Your task to perform on an android device: Search for Mexican restaurants on Maps Image 0: 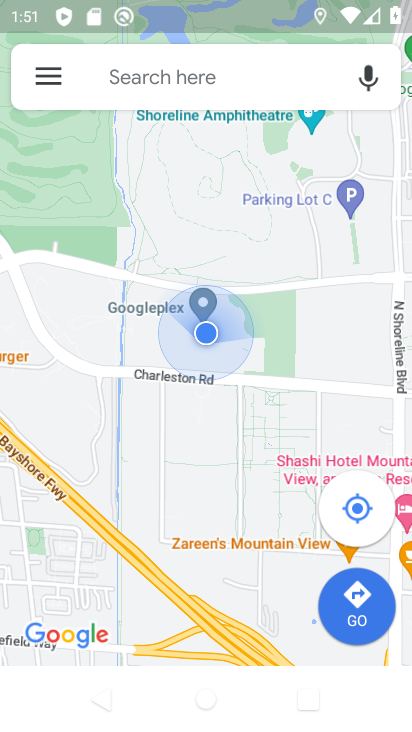
Step 0: click (145, 81)
Your task to perform on an android device: Search for Mexican restaurants on Maps Image 1: 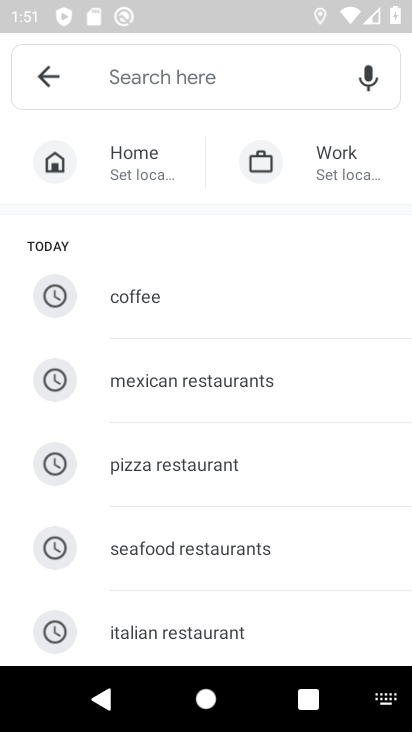
Step 1: click (172, 391)
Your task to perform on an android device: Search for Mexican restaurants on Maps Image 2: 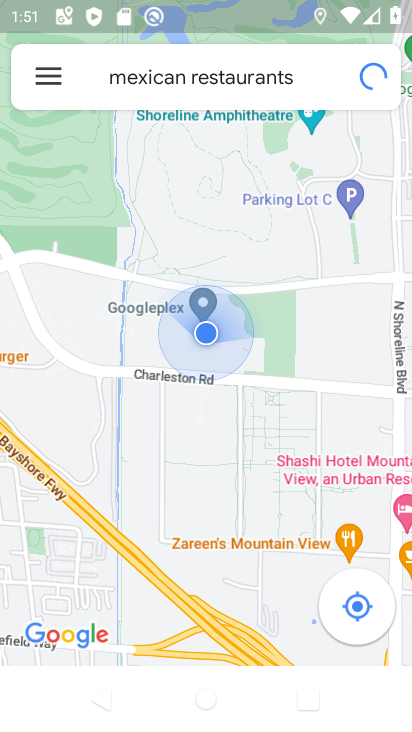
Step 2: task complete